Your task to perform on an android device: choose inbox layout in the gmail app Image 0: 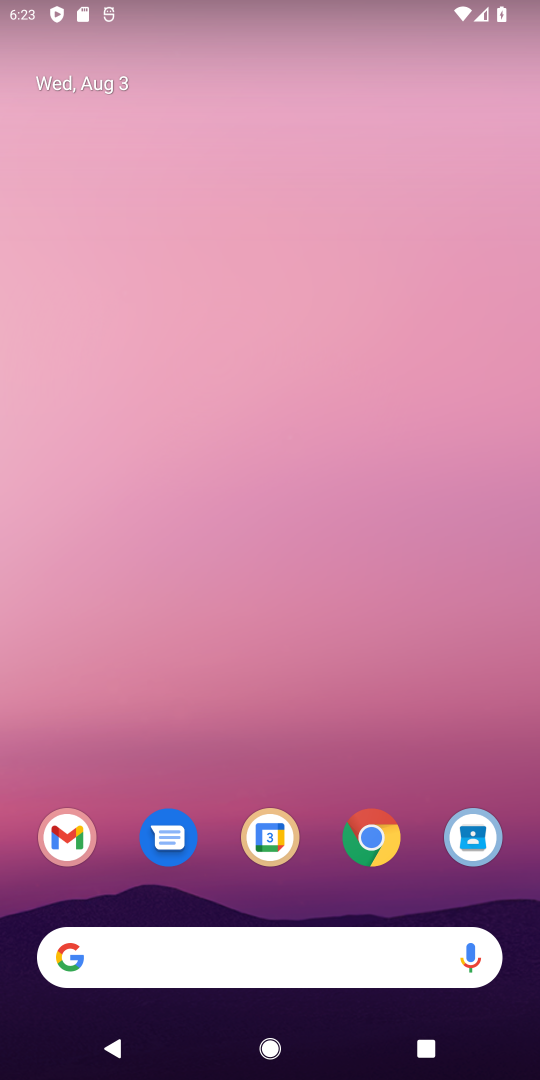
Step 0: press home button
Your task to perform on an android device: choose inbox layout in the gmail app Image 1: 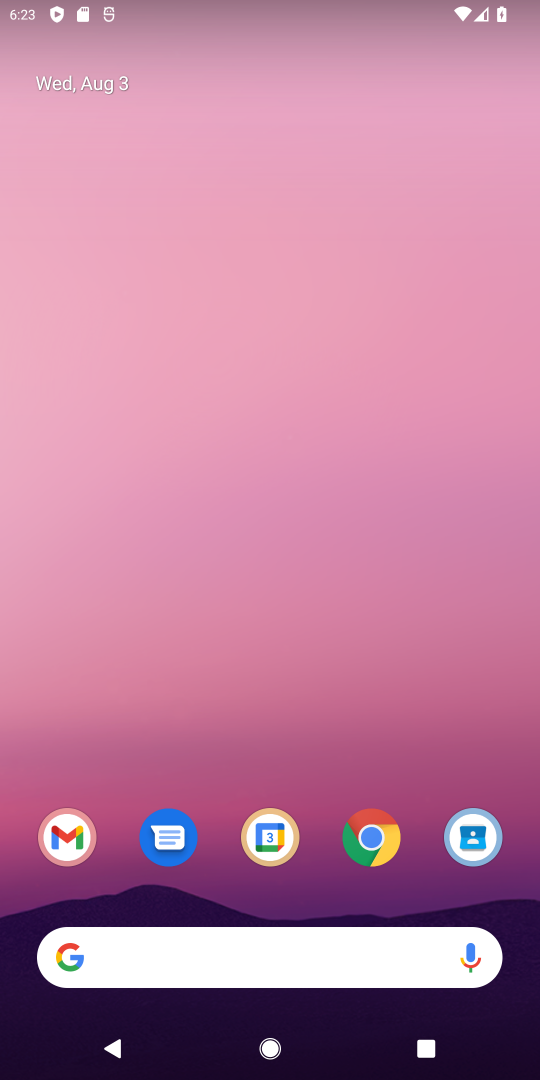
Step 1: drag from (283, 720) to (285, 210)
Your task to perform on an android device: choose inbox layout in the gmail app Image 2: 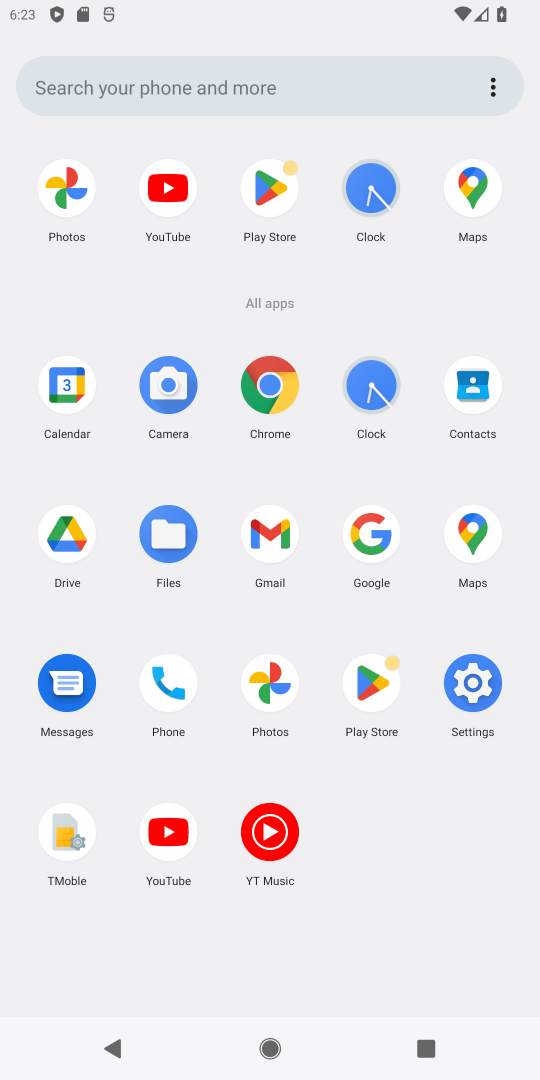
Step 2: click (278, 532)
Your task to perform on an android device: choose inbox layout in the gmail app Image 3: 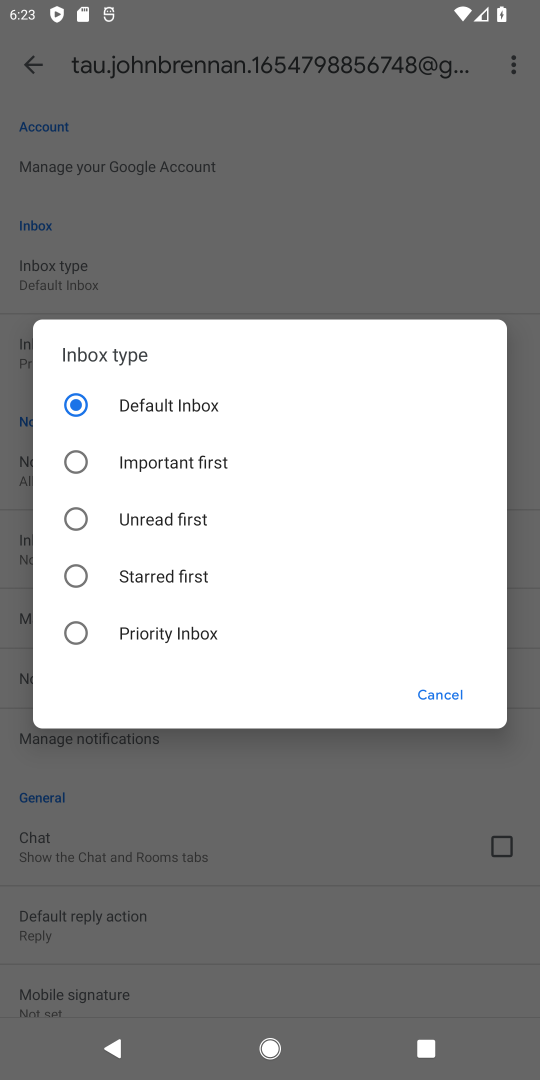
Step 3: task complete